Your task to perform on an android device: Show me productivity apps on the Play Store Image 0: 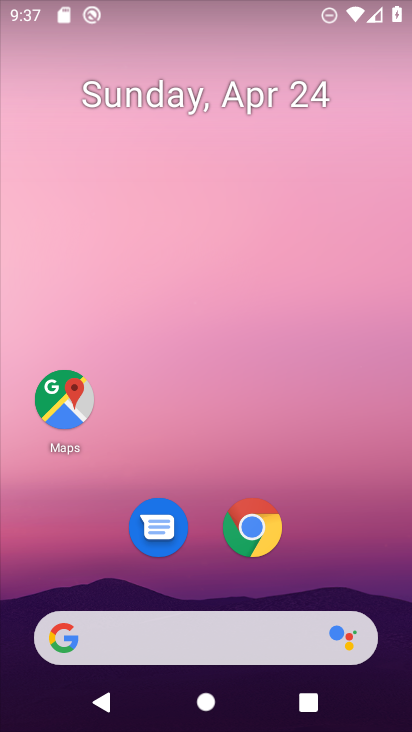
Step 0: drag from (399, 583) to (202, 2)
Your task to perform on an android device: Show me productivity apps on the Play Store Image 1: 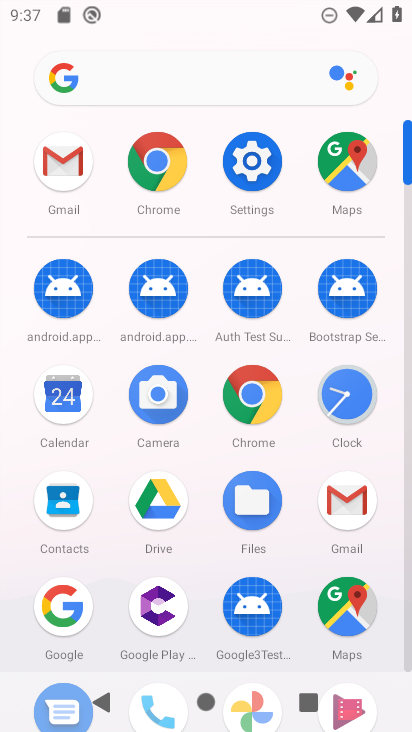
Step 1: click (408, 666)
Your task to perform on an android device: Show me productivity apps on the Play Store Image 2: 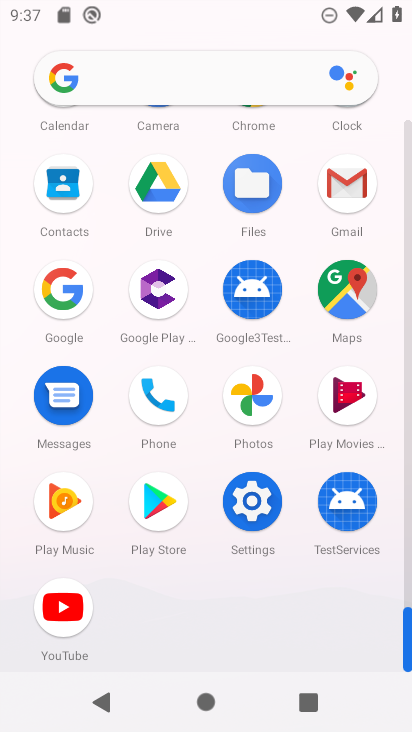
Step 2: click (154, 520)
Your task to perform on an android device: Show me productivity apps on the Play Store Image 3: 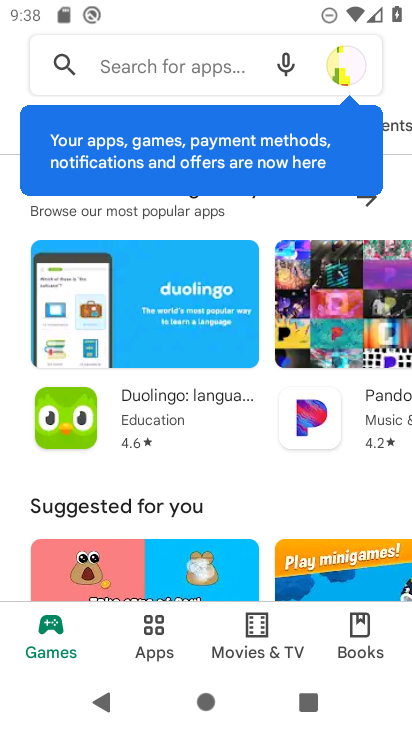
Step 3: click (150, 632)
Your task to perform on an android device: Show me productivity apps on the Play Store Image 4: 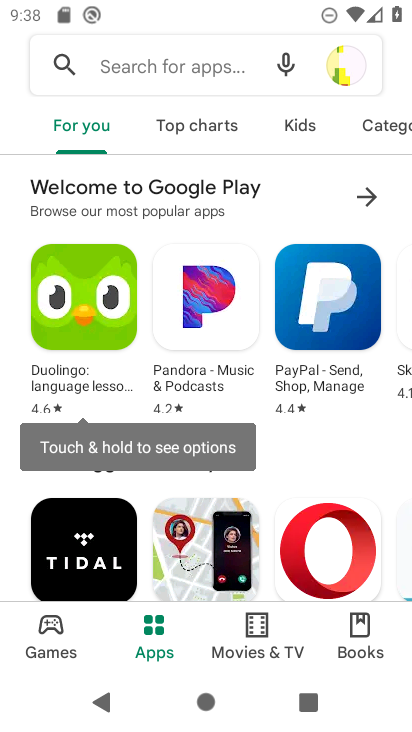
Step 4: drag from (298, 475) to (216, 179)
Your task to perform on an android device: Show me productivity apps on the Play Store Image 5: 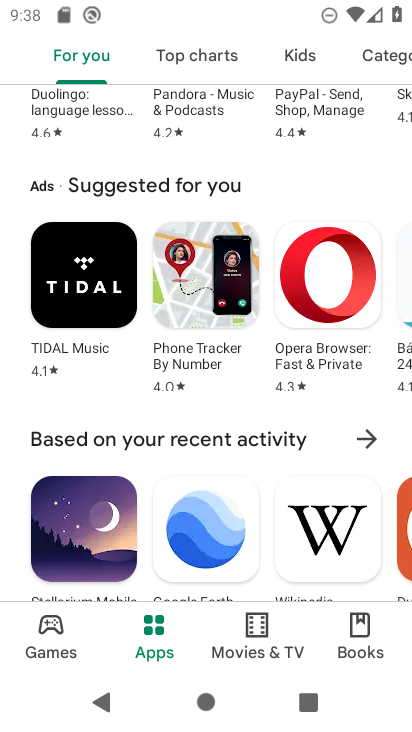
Step 5: drag from (216, 179) to (232, 555)
Your task to perform on an android device: Show me productivity apps on the Play Store Image 6: 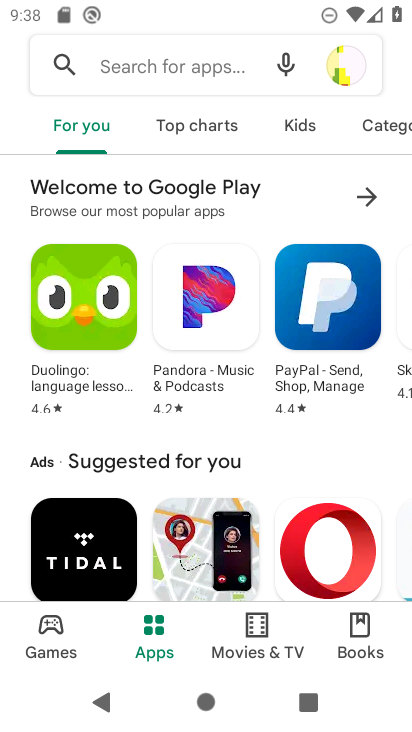
Step 6: click (194, 124)
Your task to perform on an android device: Show me productivity apps on the Play Store Image 7: 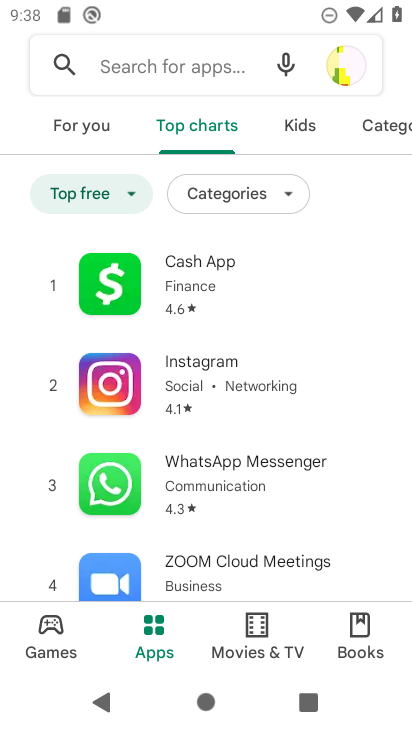
Step 7: task complete